Your task to perform on an android device: What's the latest video from Gameranx? Image 0: 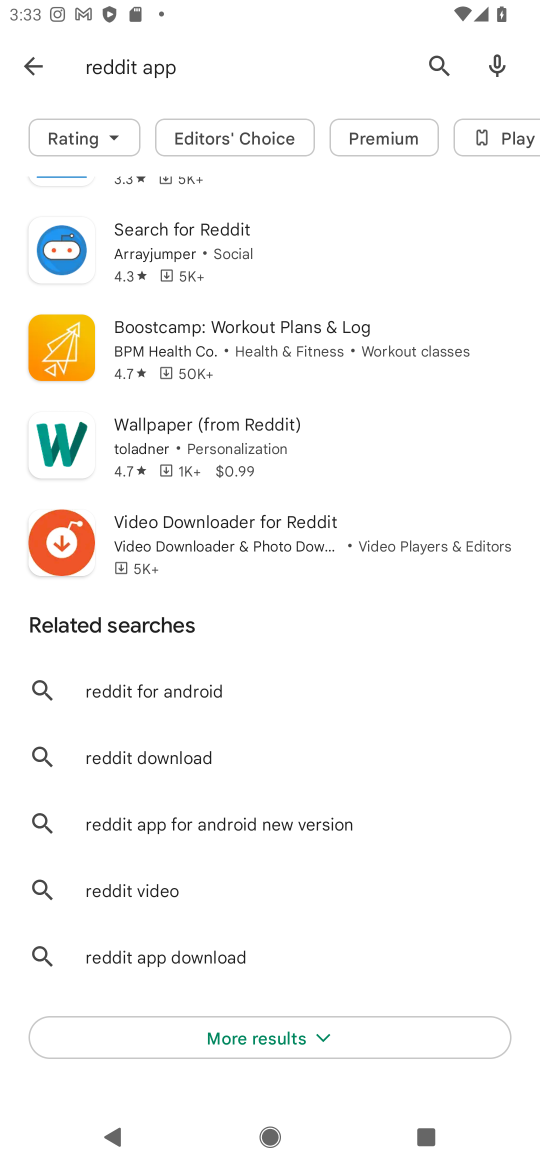
Step 0: press home button
Your task to perform on an android device: What's the latest video from Gameranx? Image 1: 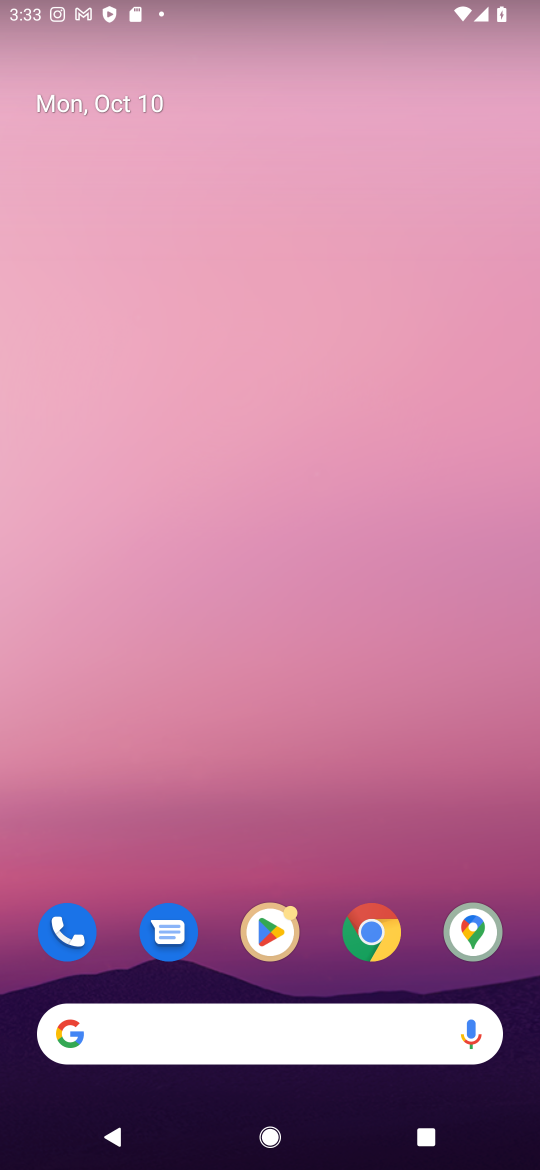
Step 1: click (240, 1017)
Your task to perform on an android device: What's the latest video from Gameranx? Image 2: 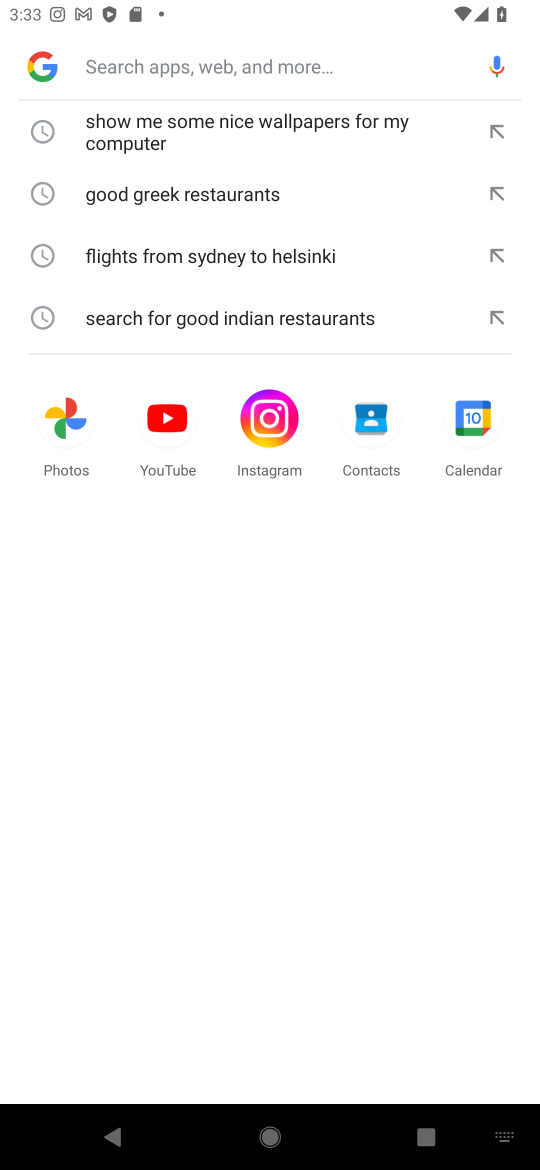
Step 2: type "What's the latest video from Gameranx"
Your task to perform on an android device: What's the latest video from Gameranx? Image 3: 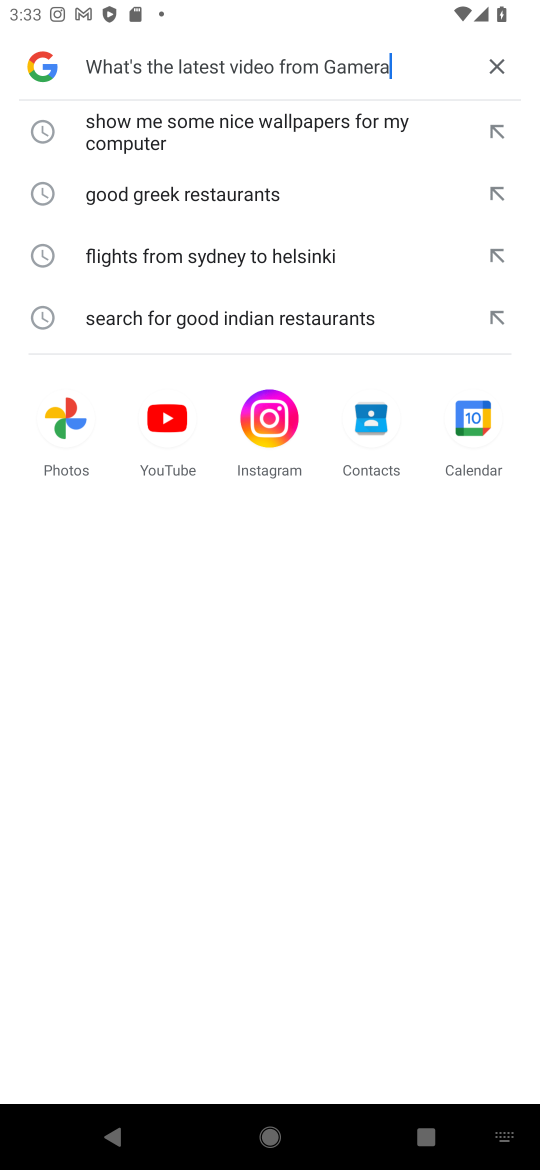
Step 3: press enter
Your task to perform on an android device: What's the latest video from Gameranx? Image 4: 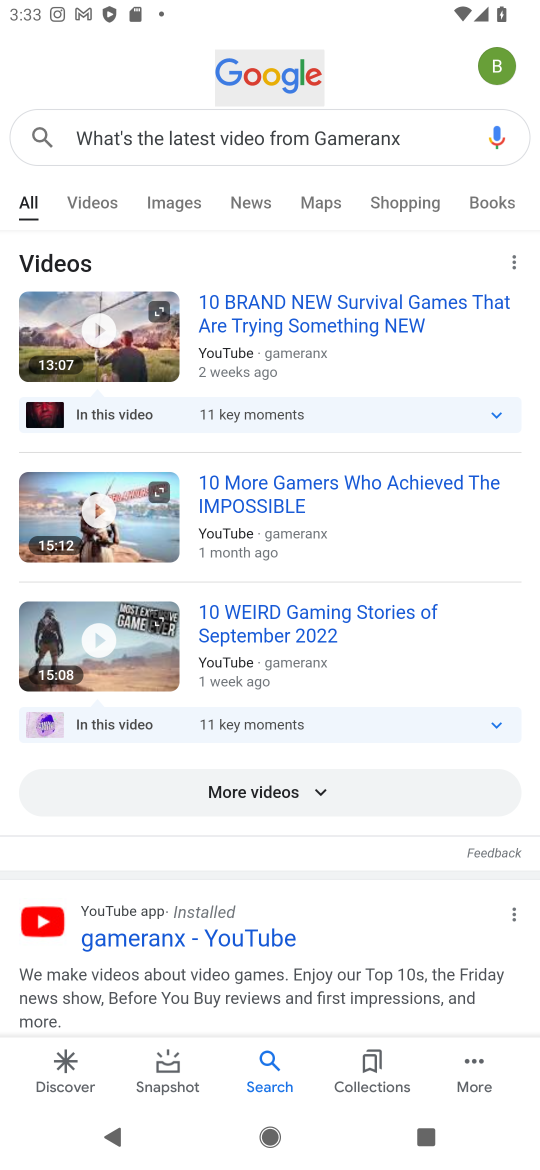
Step 4: drag from (373, 898) to (372, 611)
Your task to perform on an android device: What's the latest video from Gameranx? Image 5: 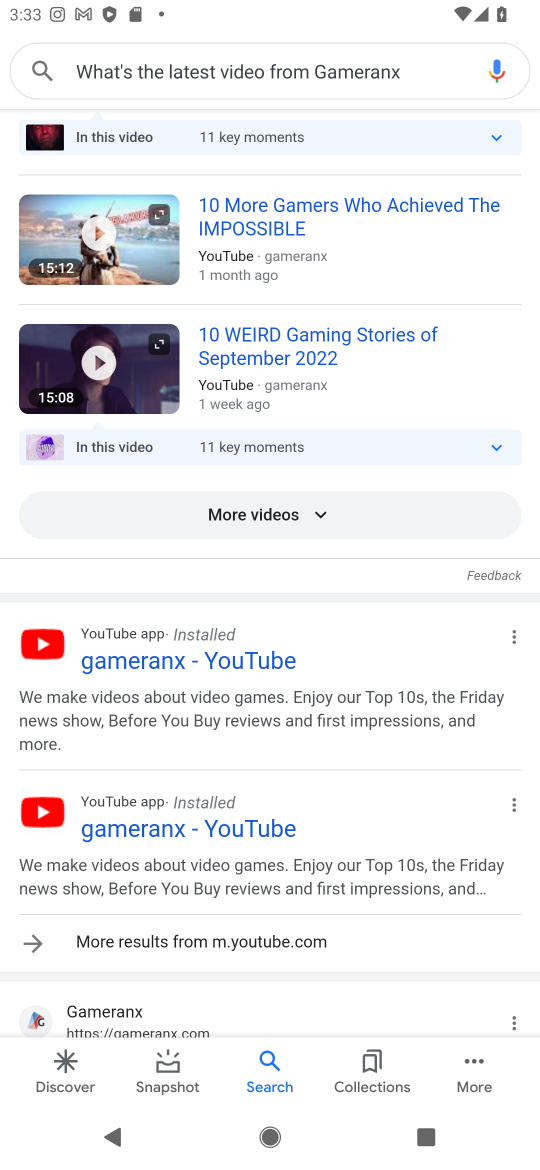
Step 5: click (241, 660)
Your task to perform on an android device: What's the latest video from Gameranx? Image 6: 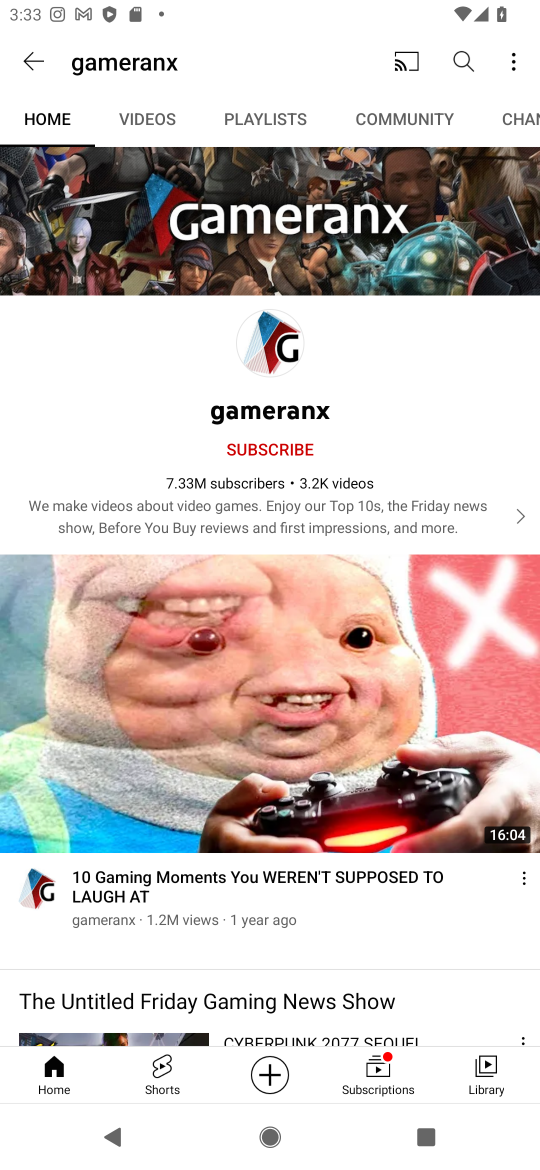
Step 6: task complete